Your task to perform on an android device: move a message to another label in the gmail app Image 0: 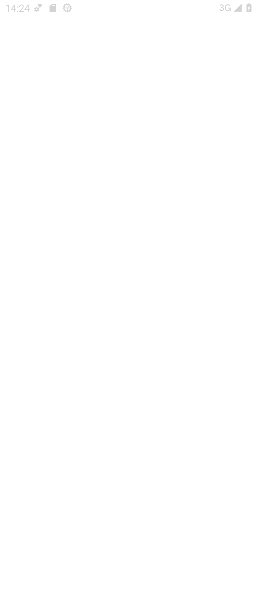
Step 0: press home button
Your task to perform on an android device: move a message to another label in the gmail app Image 1: 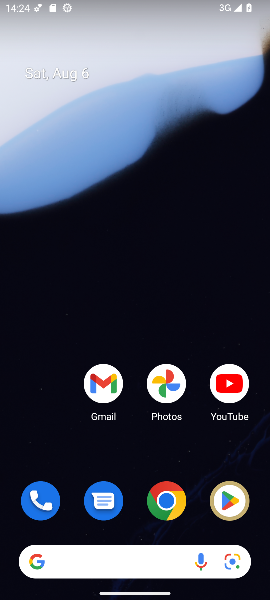
Step 1: click (97, 378)
Your task to perform on an android device: move a message to another label in the gmail app Image 2: 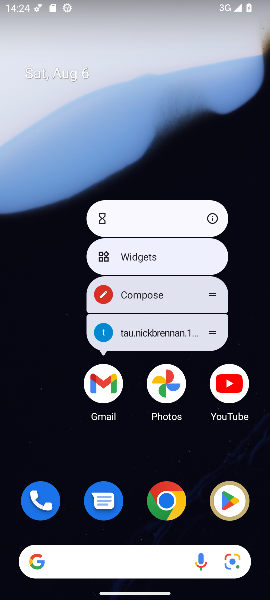
Step 2: click (102, 373)
Your task to perform on an android device: move a message to another label in the gmail app Image 3: 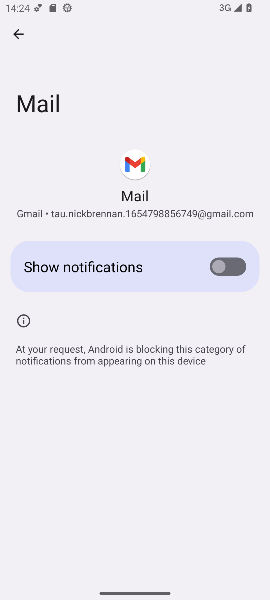
Step 3: click (18, 37)
Your task to perform on an android device: move a message to another label in the gmail app Image 4: 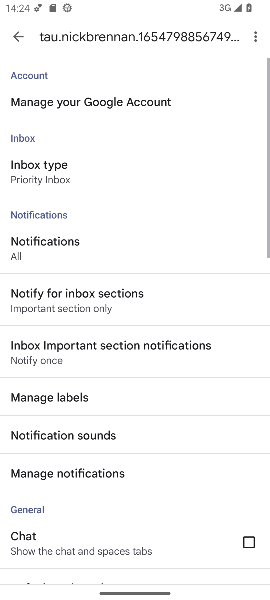
Step 4: click (14, 37)
Your task to perform on an android device: move a message to another label in the gmail app Image 5: 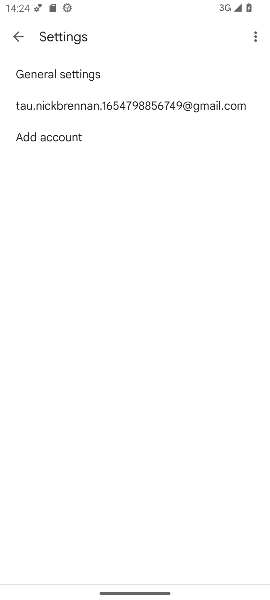
Step 5: click (14, 37)
Your task to perform on an android device: move a message to another label in the gmail app Image 6: 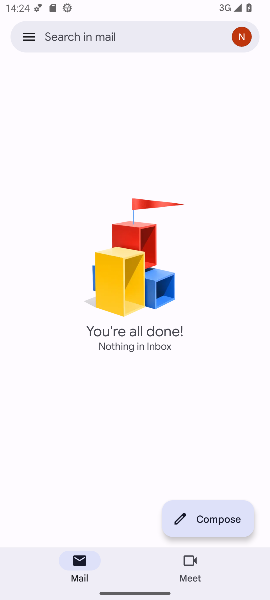
Step 6: click (14, 37)
Your task to perform on an android device: move a message to another label in the gmail app Image 7: 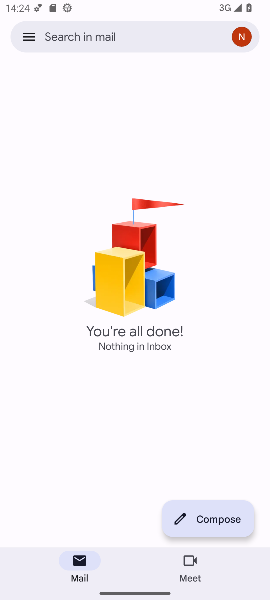
Step 7: click (26, 42)
Your task to perform on an android device: move a message to another label in the gmail app Image 8: 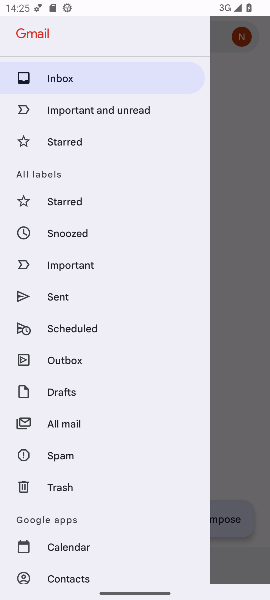
Step 8: click (59, 424)
Your task to perform on an android device: move a message to another label in the gmail app Image 9: 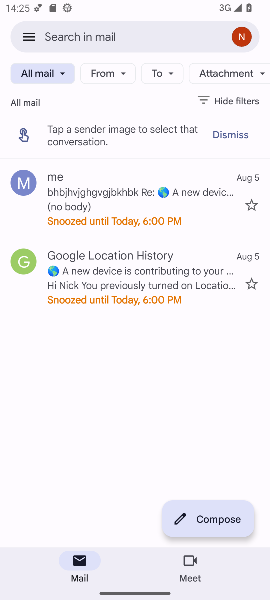
Step 9: click (154, 130)
Your task to perform on an android device: move a message to another label in the gmail app Image 10: 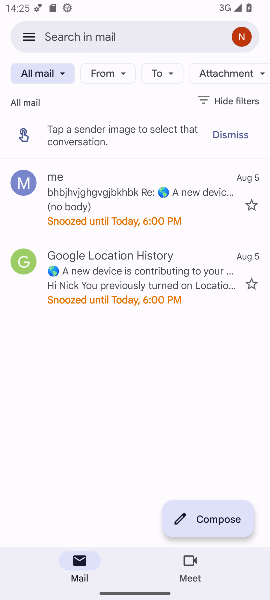
Step 10: click (142, 200)
Your task to perform on an android device: move a message to another label in the gmail app Image 11: 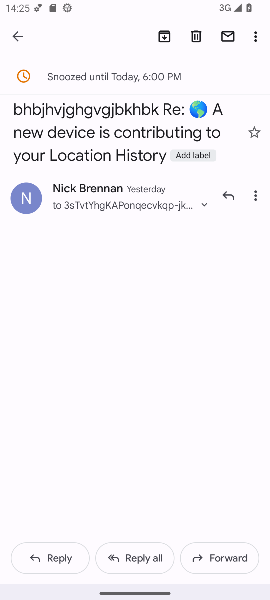
Step 11: click (247, 42)
Your task to perform on an android device: move a message to another label in the gmail app Image 12: 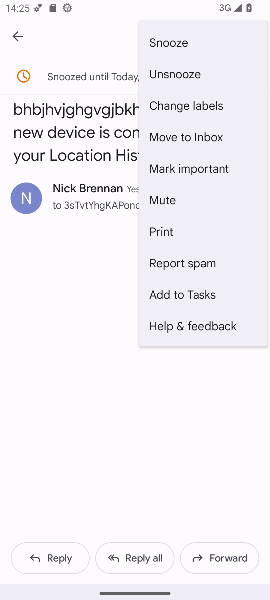
Step 12: click (185, 108)
Your task to perform on an android device: move a message to another label in the gmail app Image 13: 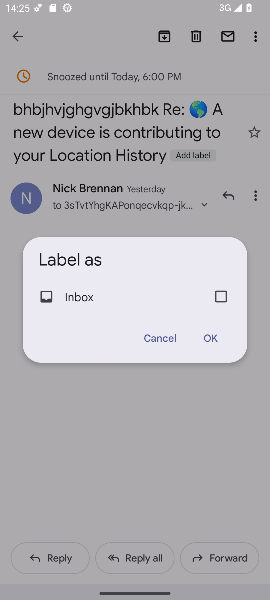
Step 13: click (217, 295)
Your task to perform on an android device: move a message to another label in the gmail app Image 14: 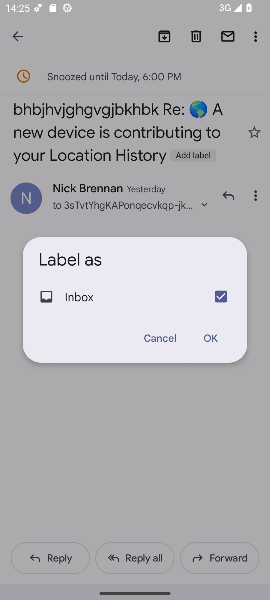
Step 14: click (214, 337)
Your task to perform on an android device: move a message to another label in the gmail app Image 15: 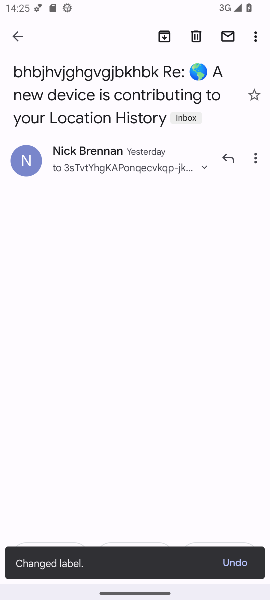
Step 15: task complete